Your task to perform on an android device: What's the weather going to be this weekend? Image 0: 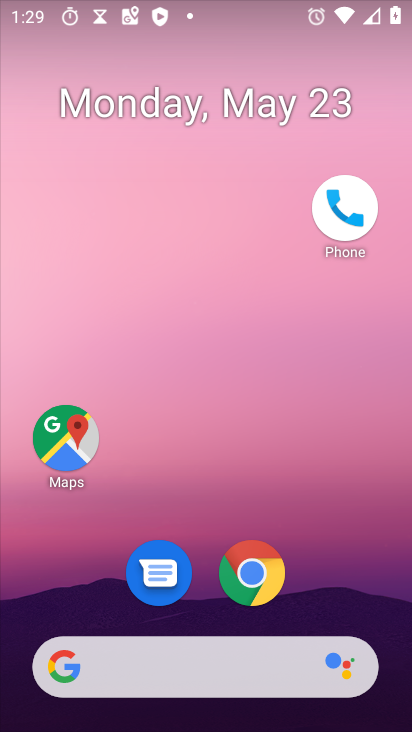
Step 0: press home button
Your task to perform on an android device: What's the weather going to be this weekend? Image 1: 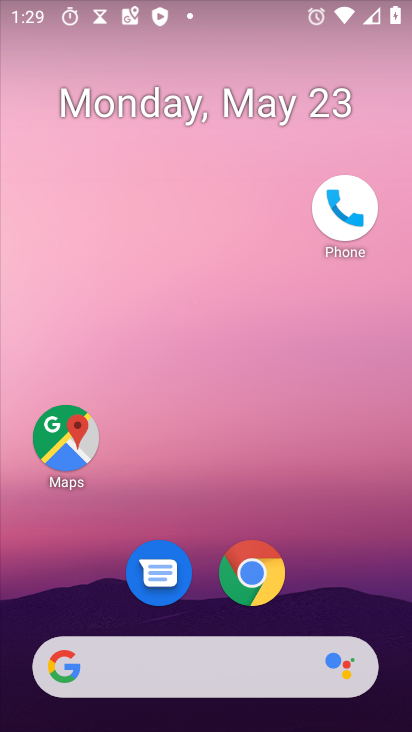
Step 1: click (71, 677)
Your task to perform on an android device: What's the weather going to be this weekend? Image 2: 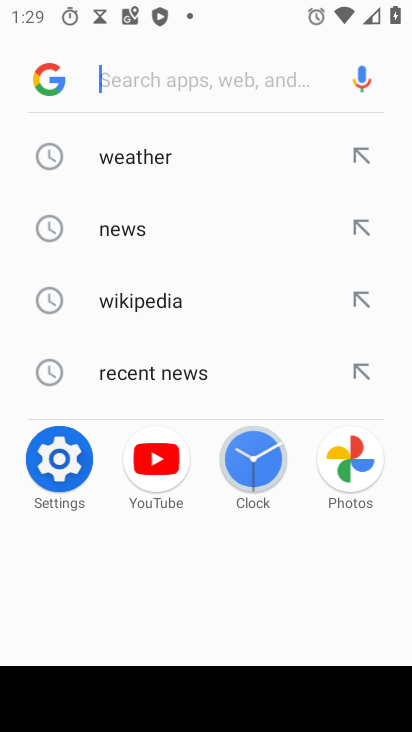
Step 2: click (158, 159)
Your task to perform on an android device: What's the weather going to be this weekend? Image 3: 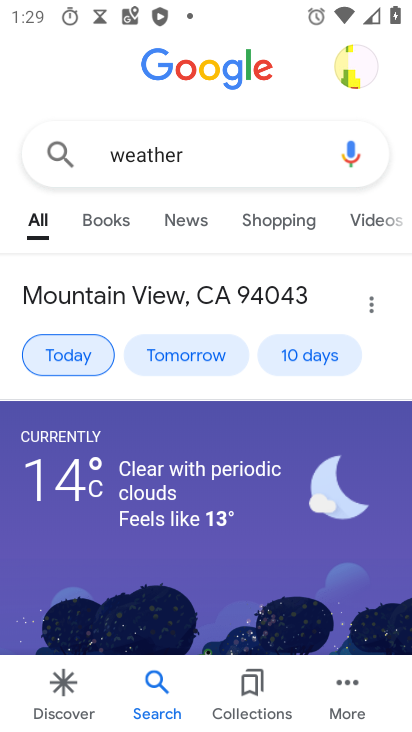
Step 3: click (299, 363)
Your task to perform on an android device: What's the weather going to be this weekend? Image 4: 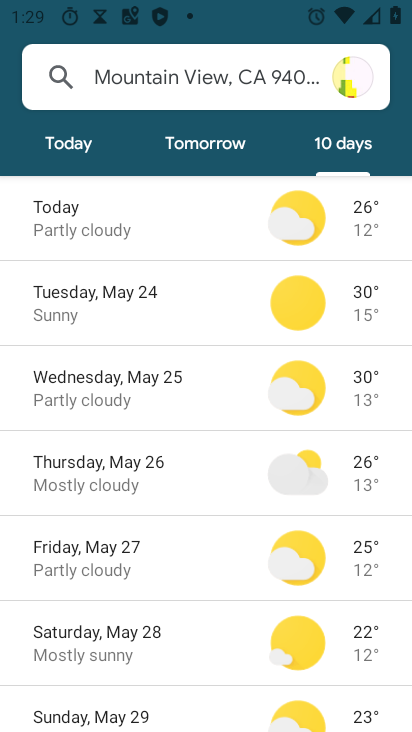
Step 4: click (136, 636)
Your task to perform on an android device: What's the weather going to be this weekend? Image 5: 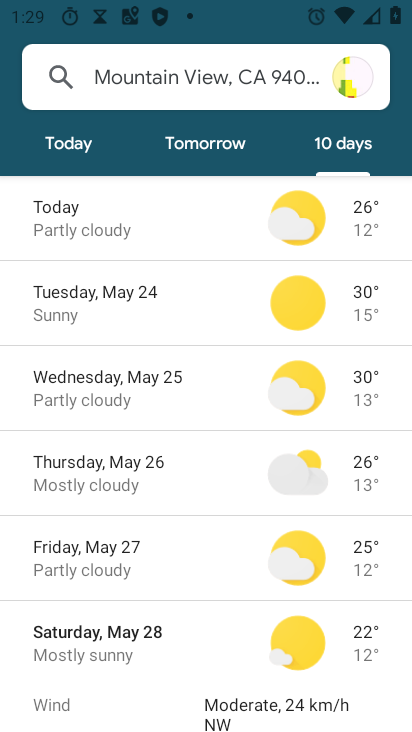
Step 5: task complete